Your task to perform on an android device: Open the calendar and show me this week's events Image 0: 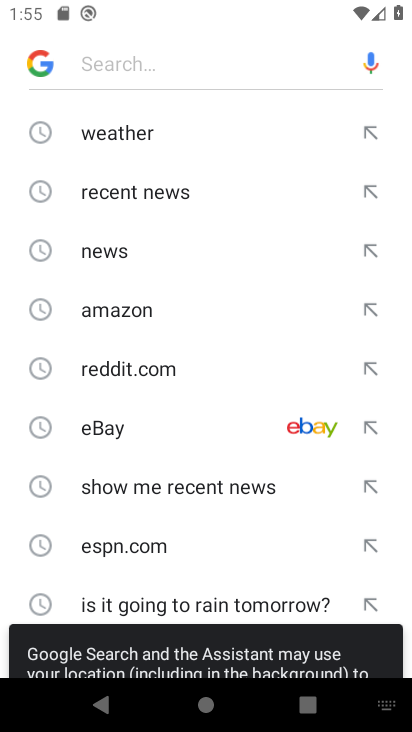
Step 0: press home button
Your task to perform on an android device: Open the calendar and show me this week's events Image 1: 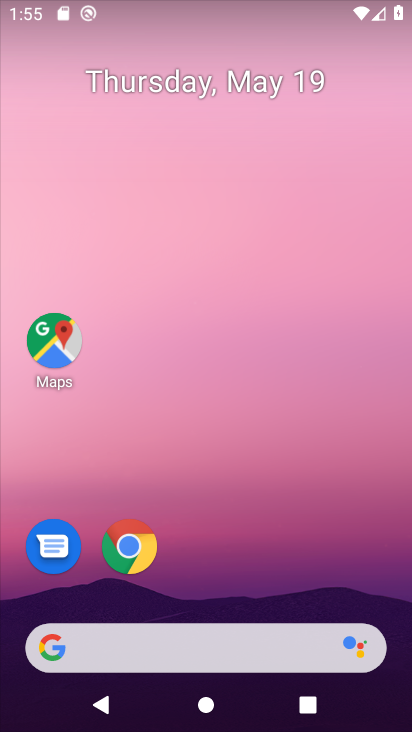
Step 1: drag from (221, 583) to (255, 89)
Your task to perform on an android device: Open the calendar and show me this week's events Image 2: 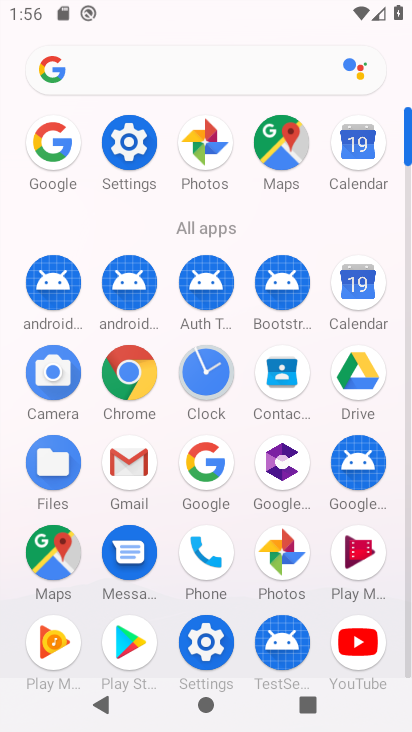
Step 2: click (359, 280)
Your task to perform on an android device: Open the calendar and show me this week's events Image 3: 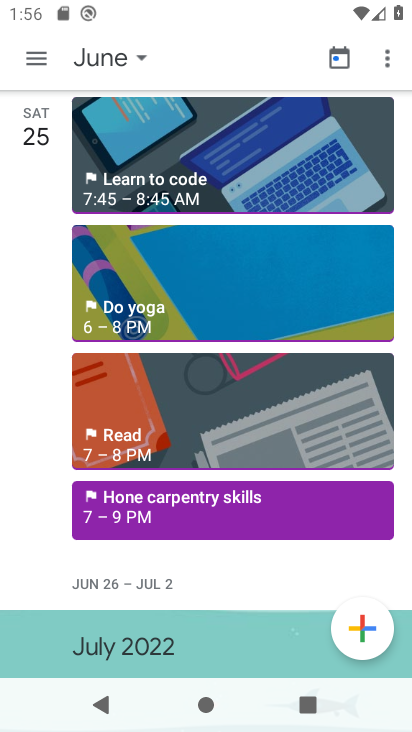
Step 3: click (31, 63)
Your task to perform on an android device: Open the calendar and show me this week's events Image 4: 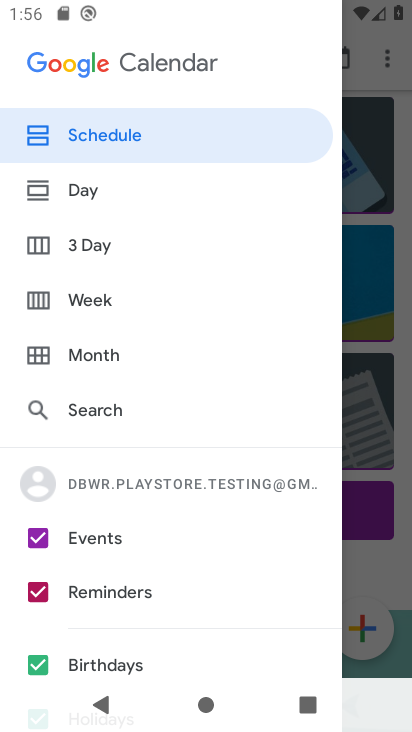
Step 4: click (51, 293)
Your task to perform on an android device: Open the calendar and show me this week's events Image 5: 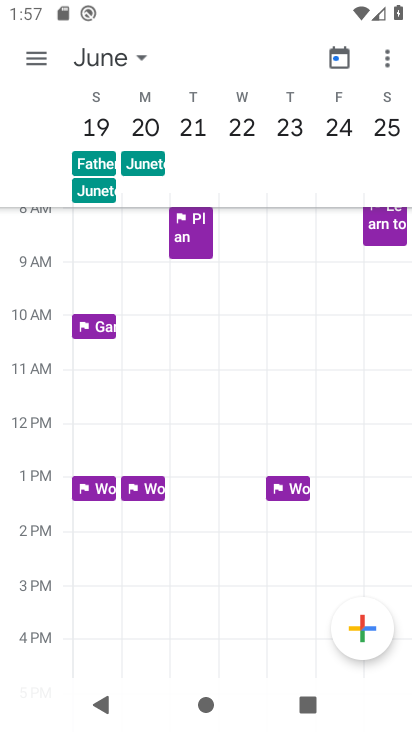
Step 5: click (130, 58)
Your task to perform on an android device: Open the calendar and show me this week's events Image 6: 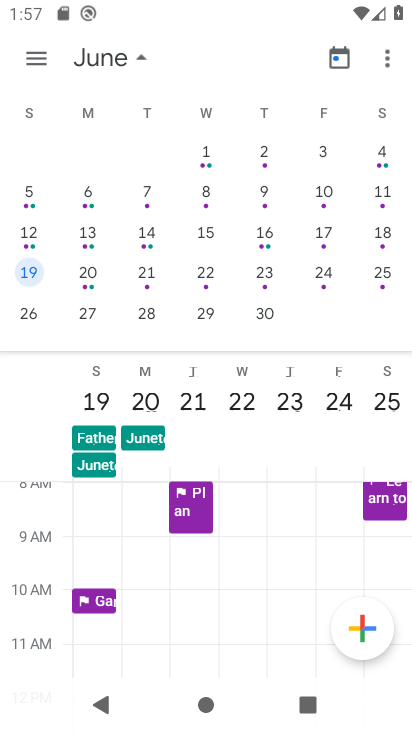
Step 6: drag from (43, 257) to (411, 248)
Your task to perform on an android device: Open the calendar and show me this week's events Image 7: 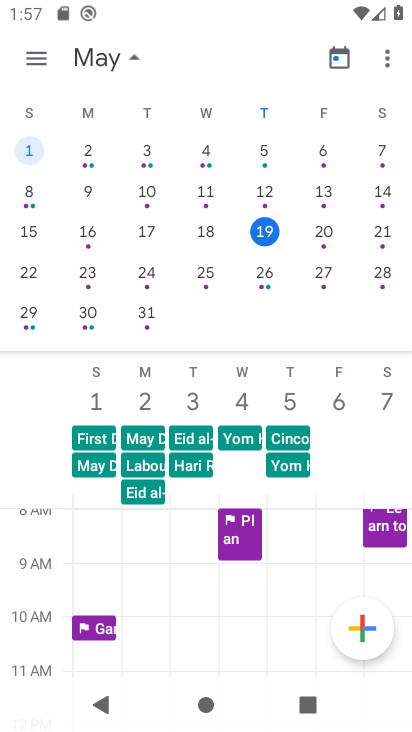
Step 7: click (272, 228)
Your task to perform on an android device: Open the calendar and show me this week's events Image 8: 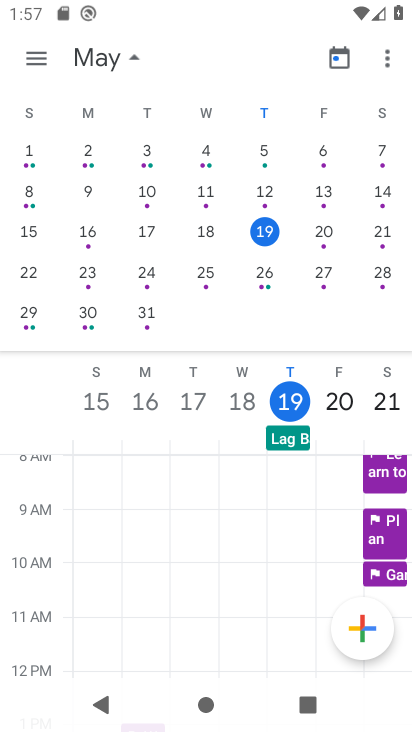
Step 8: click (263, 230)
Your task to perform on an android device: Open the calendar and show me this week's events Image 9: 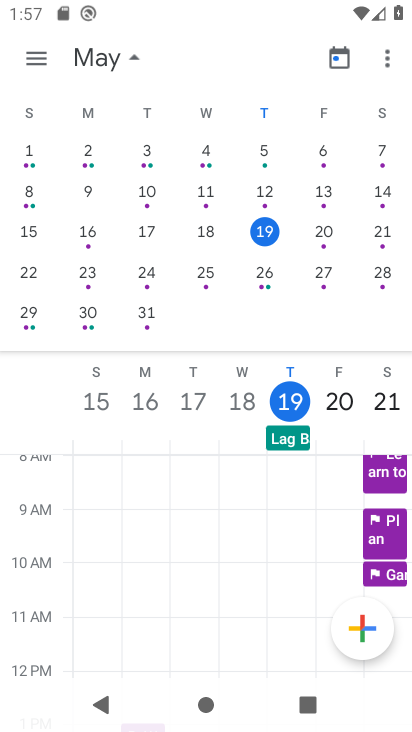
Step 9: click (134, 56)
Your task to perform on an android device: Open the calendar and show me this week's events Image 10: 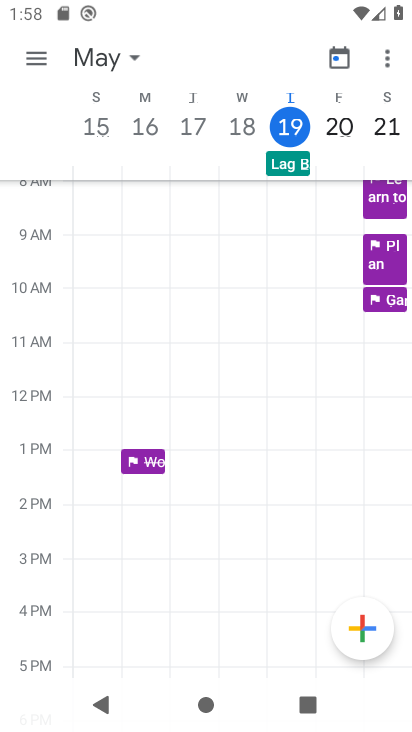
Step 10: click (287, 122)
Your task to perform on an android device: Open the calendar and show me this week's events Image 11: 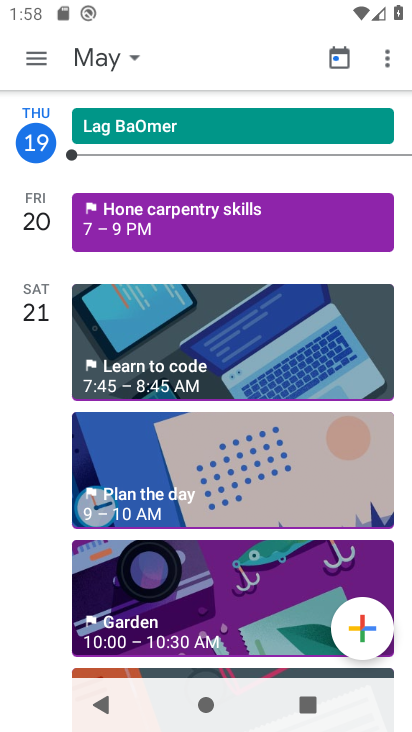
Step 11: task complete